Your task to perform on an android device: Go to Wikipedia Image 0: 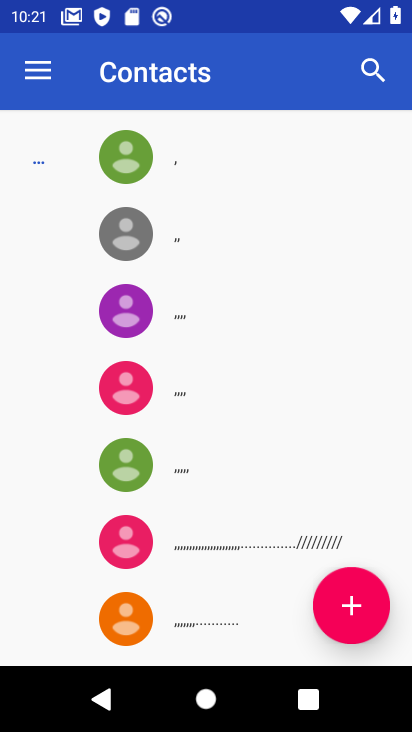
Step 0: press home button
Your task to perform on an android device: Go to Wikipedia Image 1: 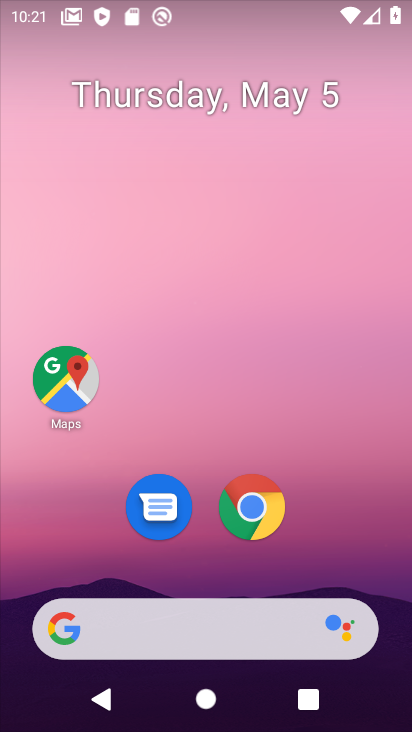
Step 1: click (261, 513)
Your task to perform on an android device: Go to Wikipedia Image 2: 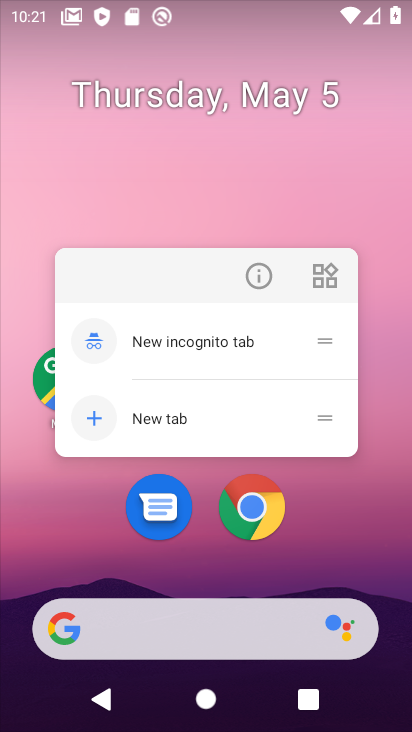
Step 2: click (254, 512)
Your task to perform on an android device: Go to Wikipedia Image 3: 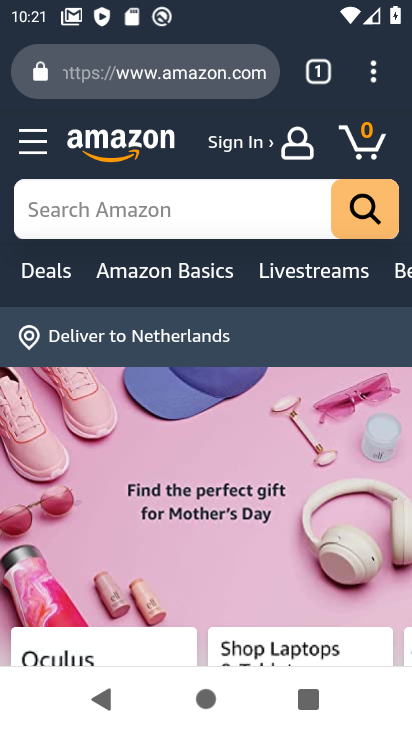
Step 3: click (110, 71)
Your task to perform on an android device: Go to Wikipedia Image 4: 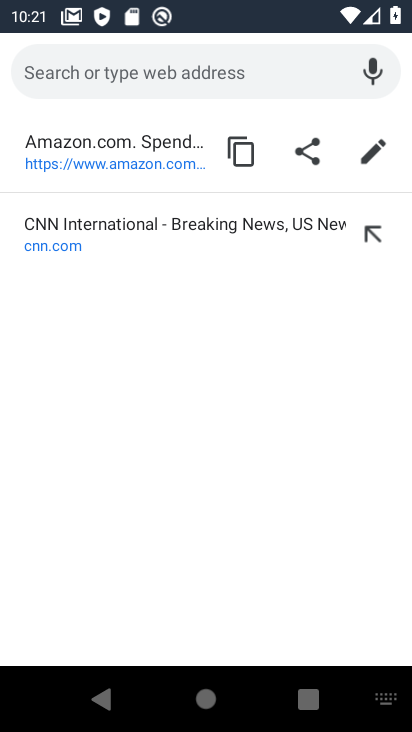
Step 4: type "wikipedia"
Your task to perform on an android device: Go to Wikipedia Image 5: 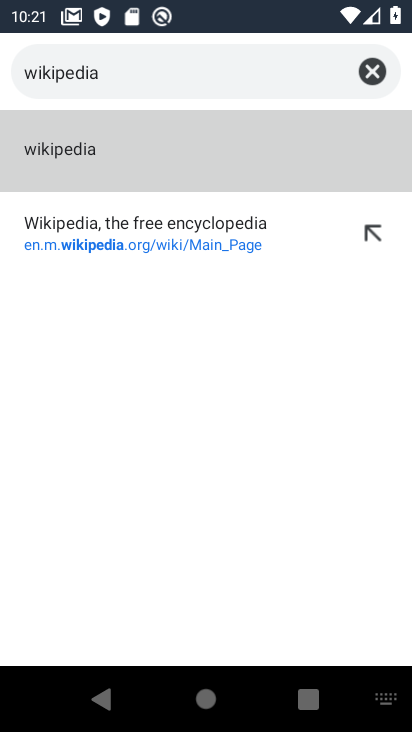
Step 5: click (69, 149)
Your task to perform on an android device: Go to Wikipedia Image 6: 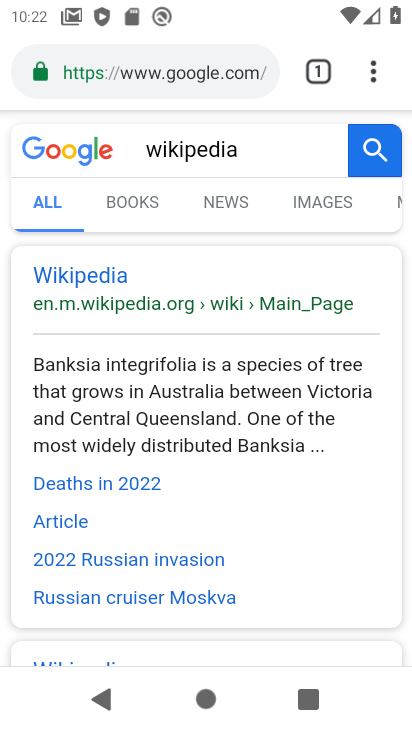
Step 6: click (66, 281)
Your task to perform on an android device: Go to Wikipedia Image 7: 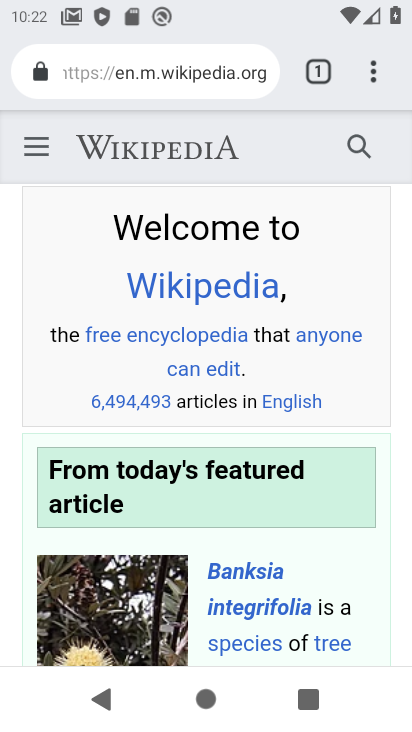
Step 7: task complete